Your task to perform on an android device: open app "McDonald's" (install if not already installed), go to login, and select forgot password Image 0: 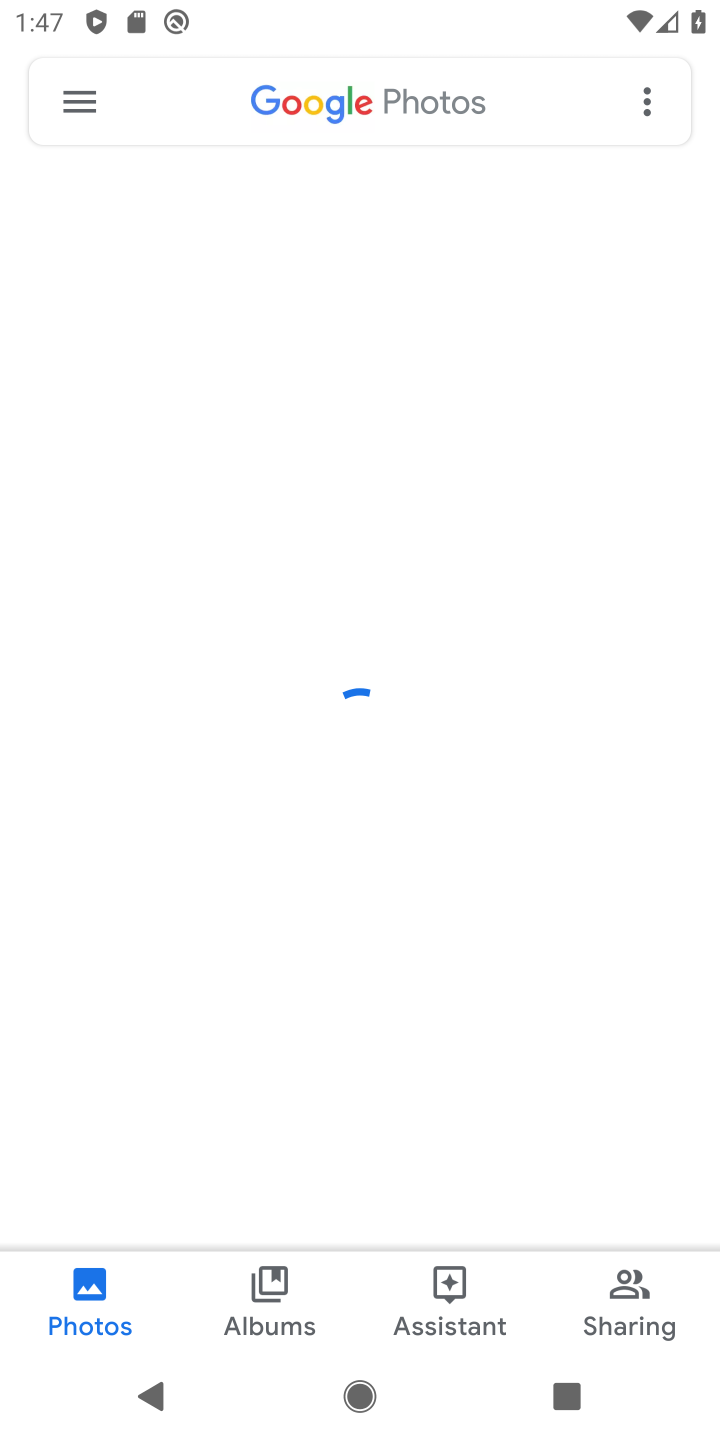
Step 0: press home button
Your task to perform on an android device: open app "McDonald's" (install if not already installed), go to login, and select forgot password Image 1: 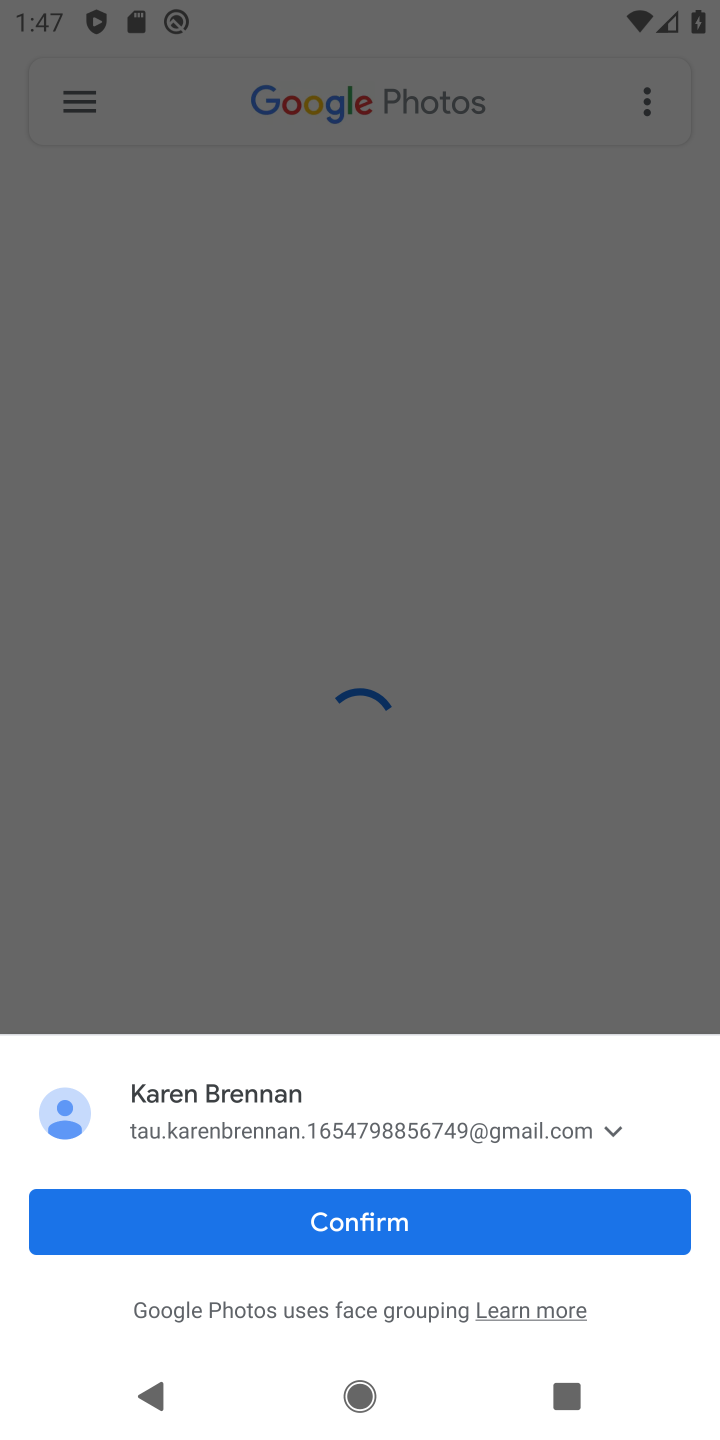
Step 1: press home button
Your task to perform on an android device: open app "McDonald's" (install if not already installed), go to login, and select forgot password Image 2: 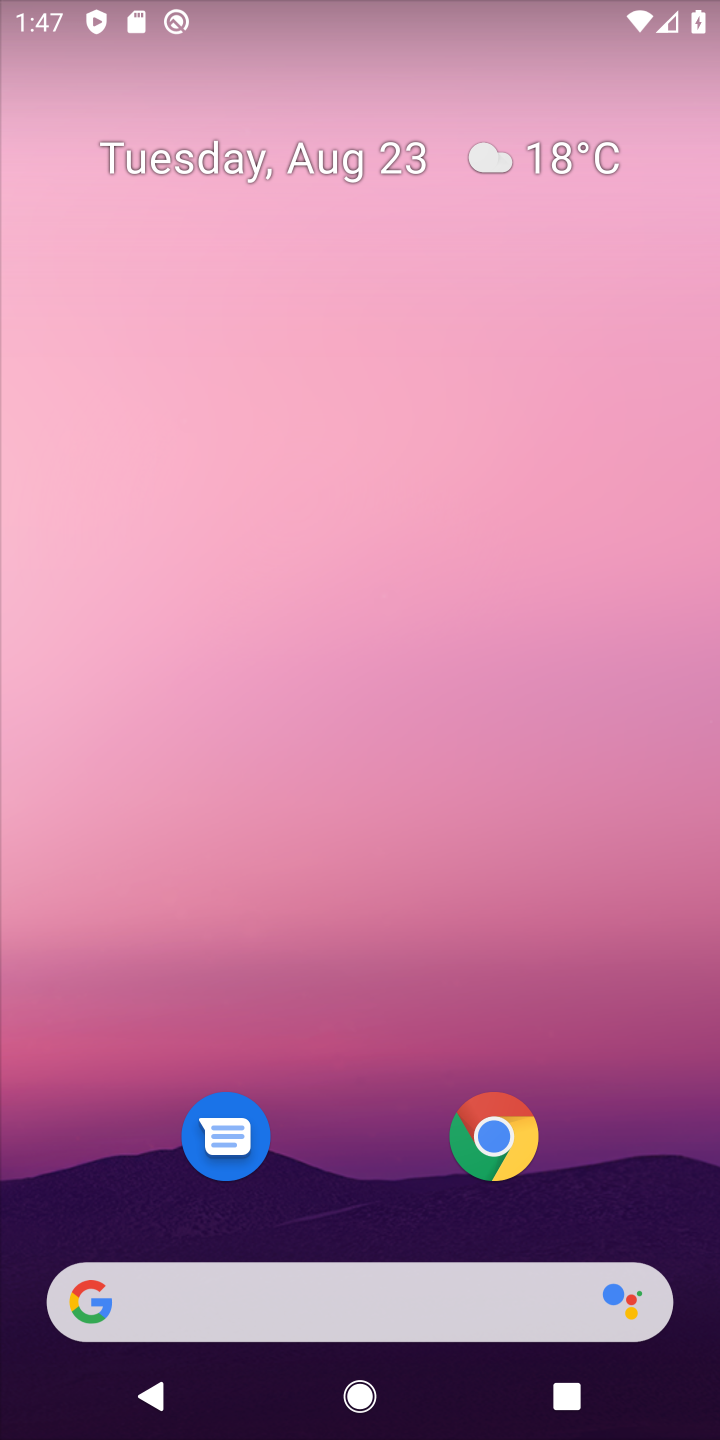
Step 2: press home button
Your task to perform on an android device: open app "McDonald's" (install if not already installed), go to login, and select forgot password Image 3: 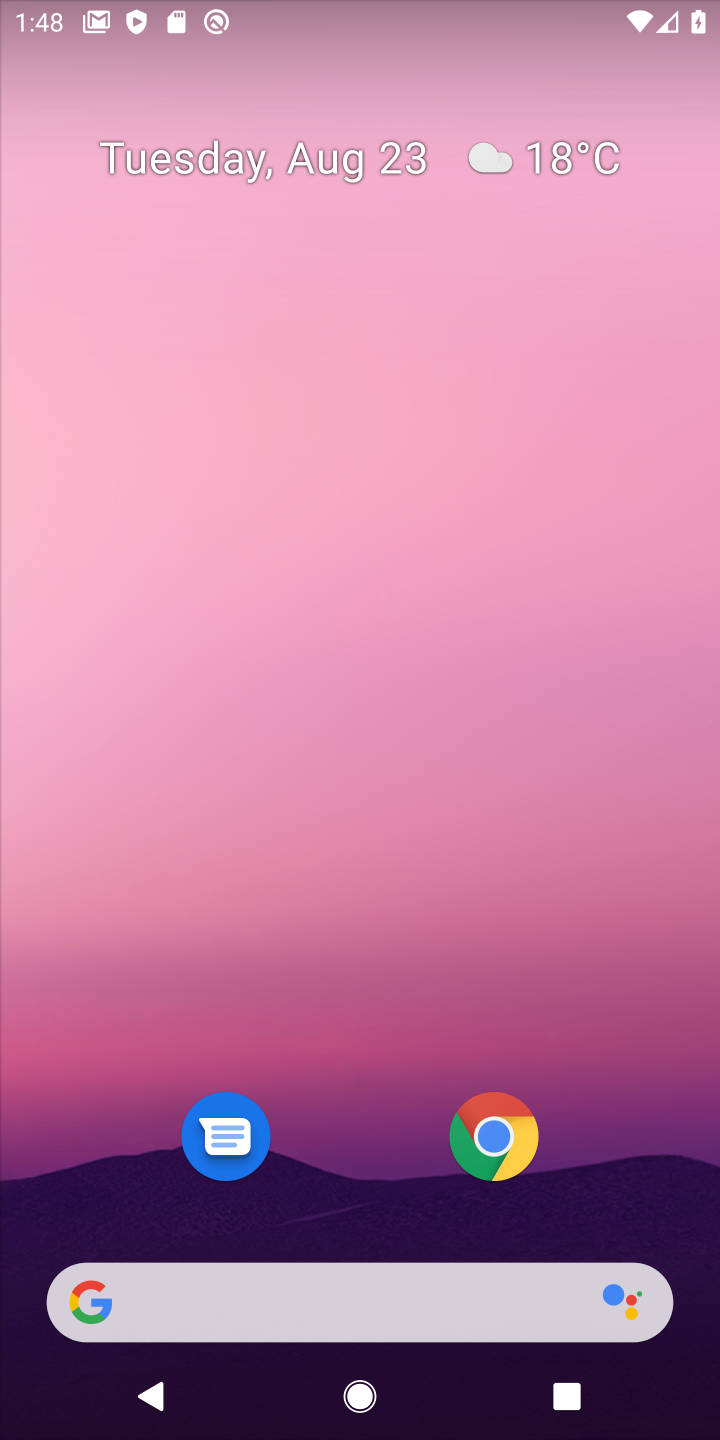
Step 3: drag from (411, 834) to (451, 96)
Your task to perform on an android device: open app "McDonald's" (install if not already installed), go to login, and select forgot password Image 4: 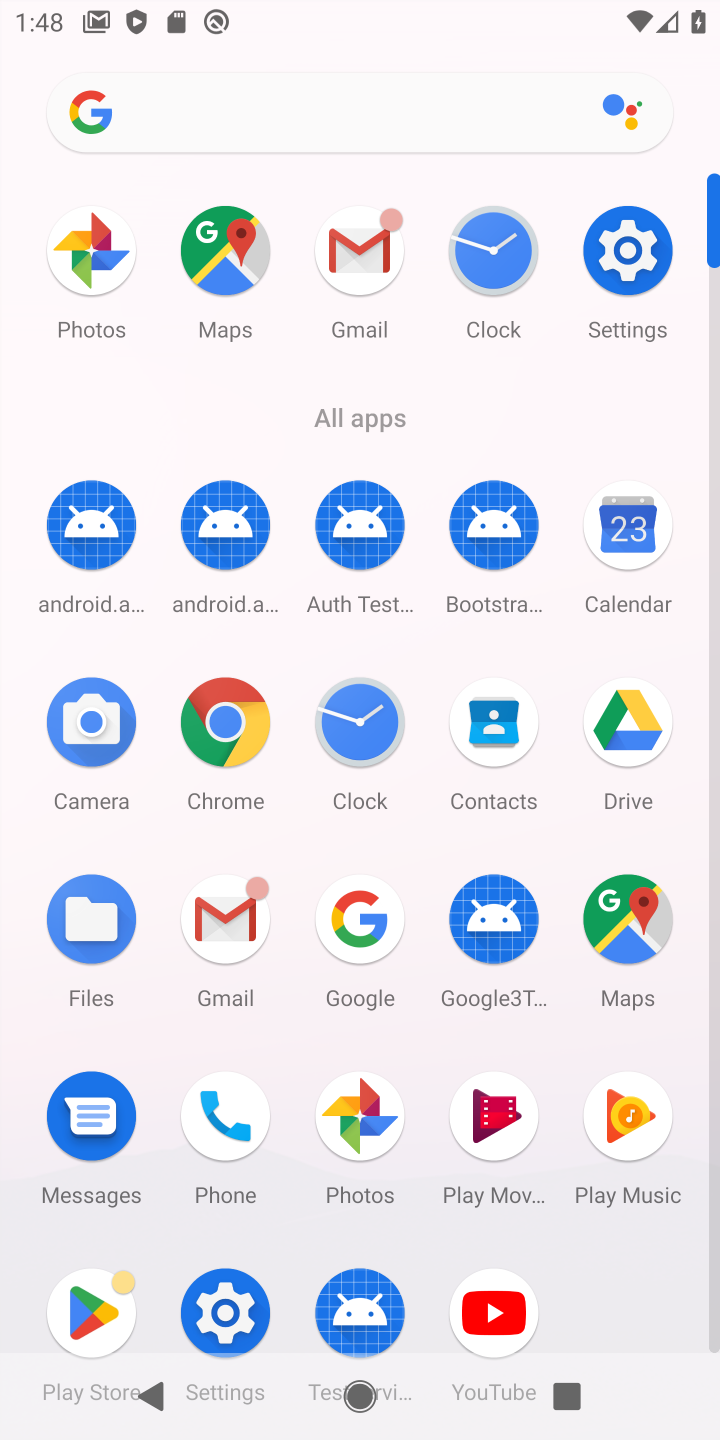
Step 4: click (90, 1300)
Your task to perform on an android device: open app "McDonald's" (install if not already installed), go to login, and select forgot password Image 5: 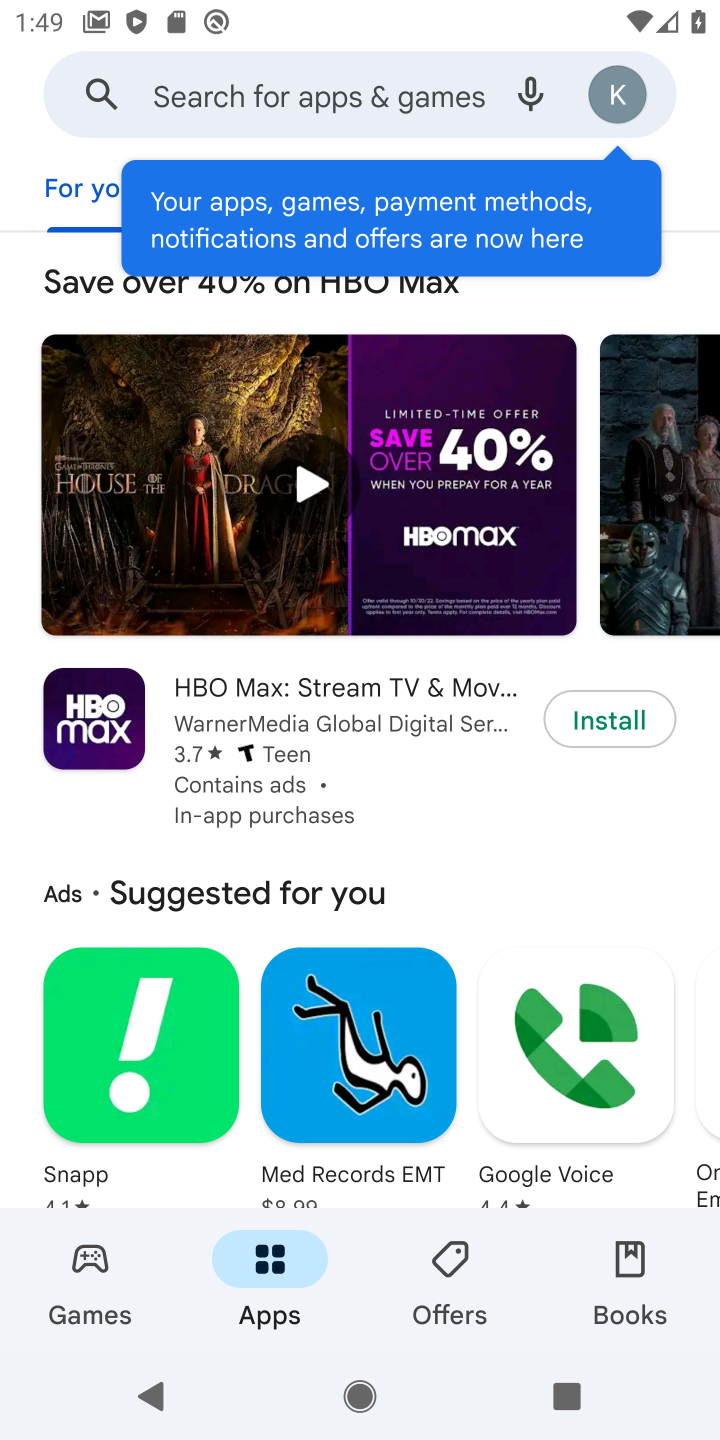
Step 5: click (258, 67)
Your task to perform on an android device: open app "McDonald's" (install if not already installed), go to login, and select forgot password Image 6: 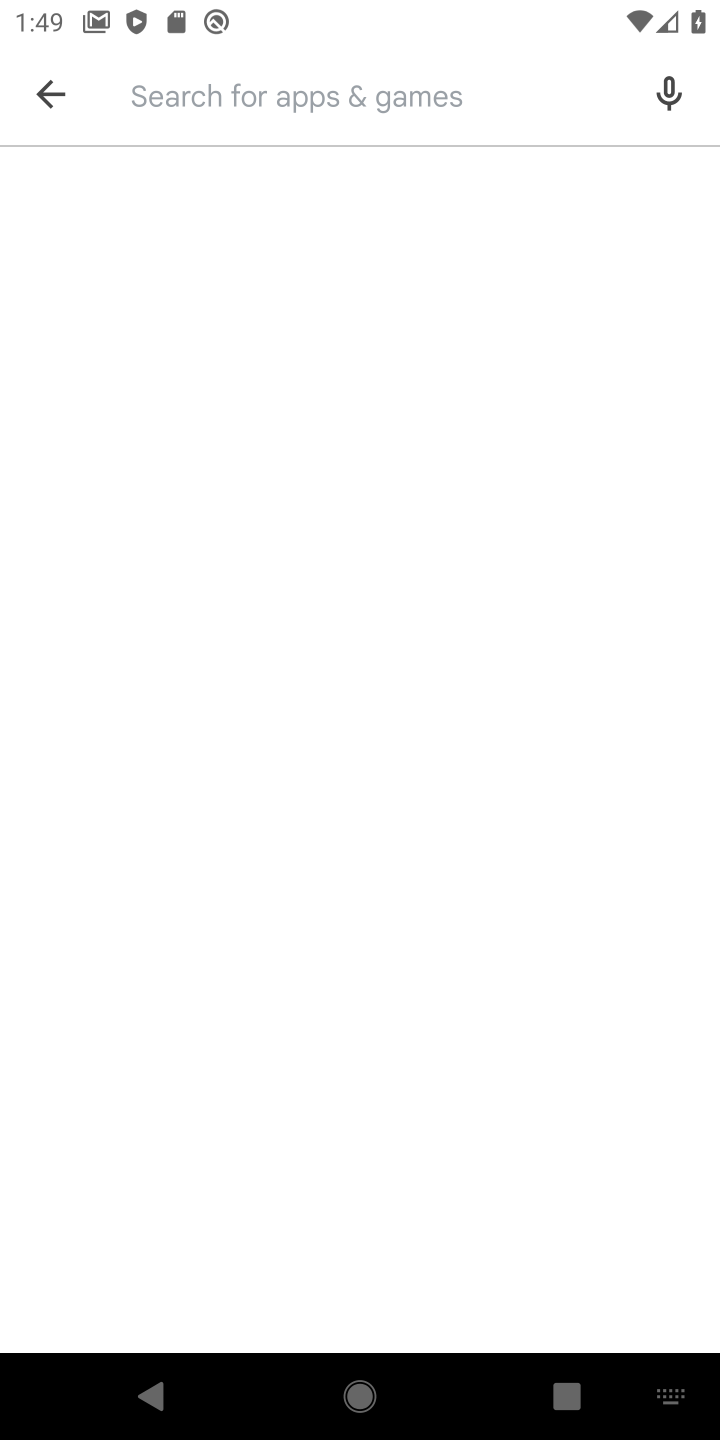
Step 6: type "McDonald's"
Your task to perform on an android device: open app "McDonald's" (install if not already installed), go to login, and select forgot password Image 7: 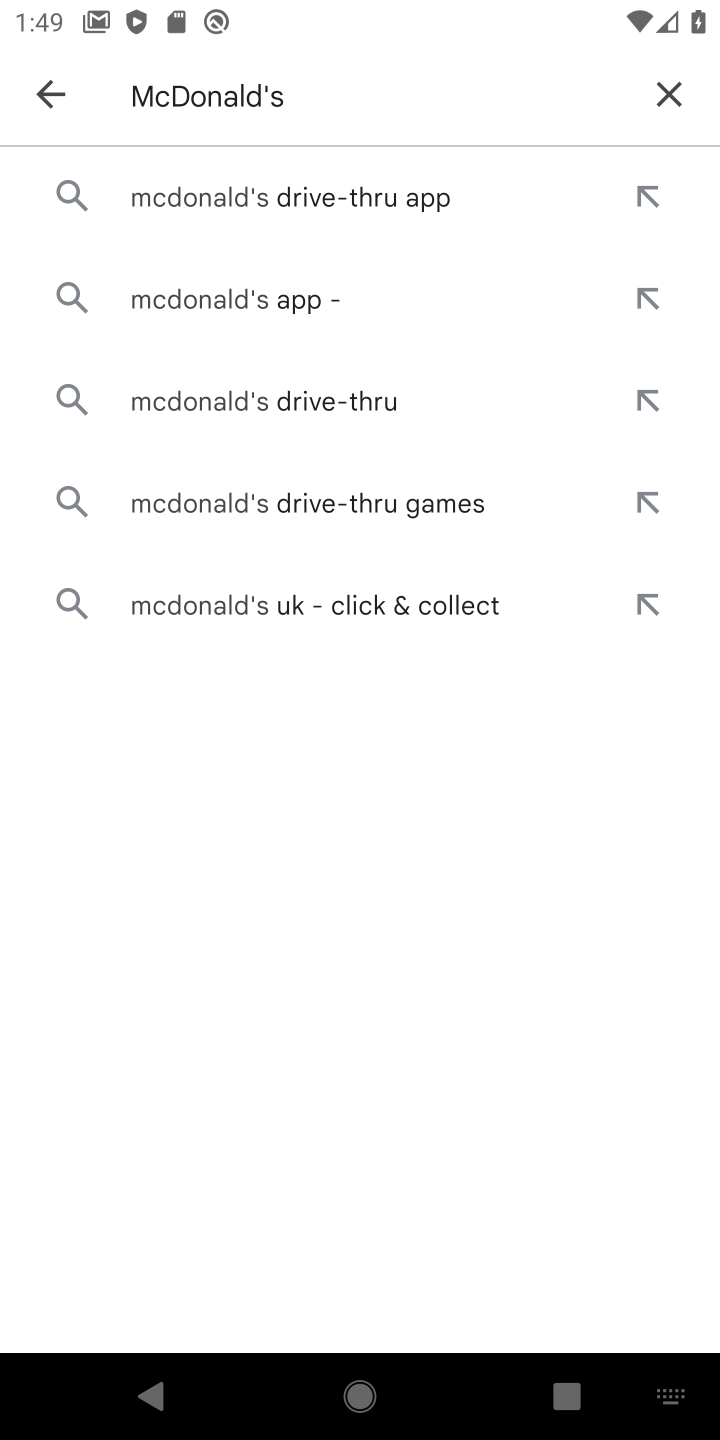
Step 7: click (303, 295)
Your task to perform on an android device: open app "McDonald's" (install if not already installed), go to login, and select forgot password Image 8: 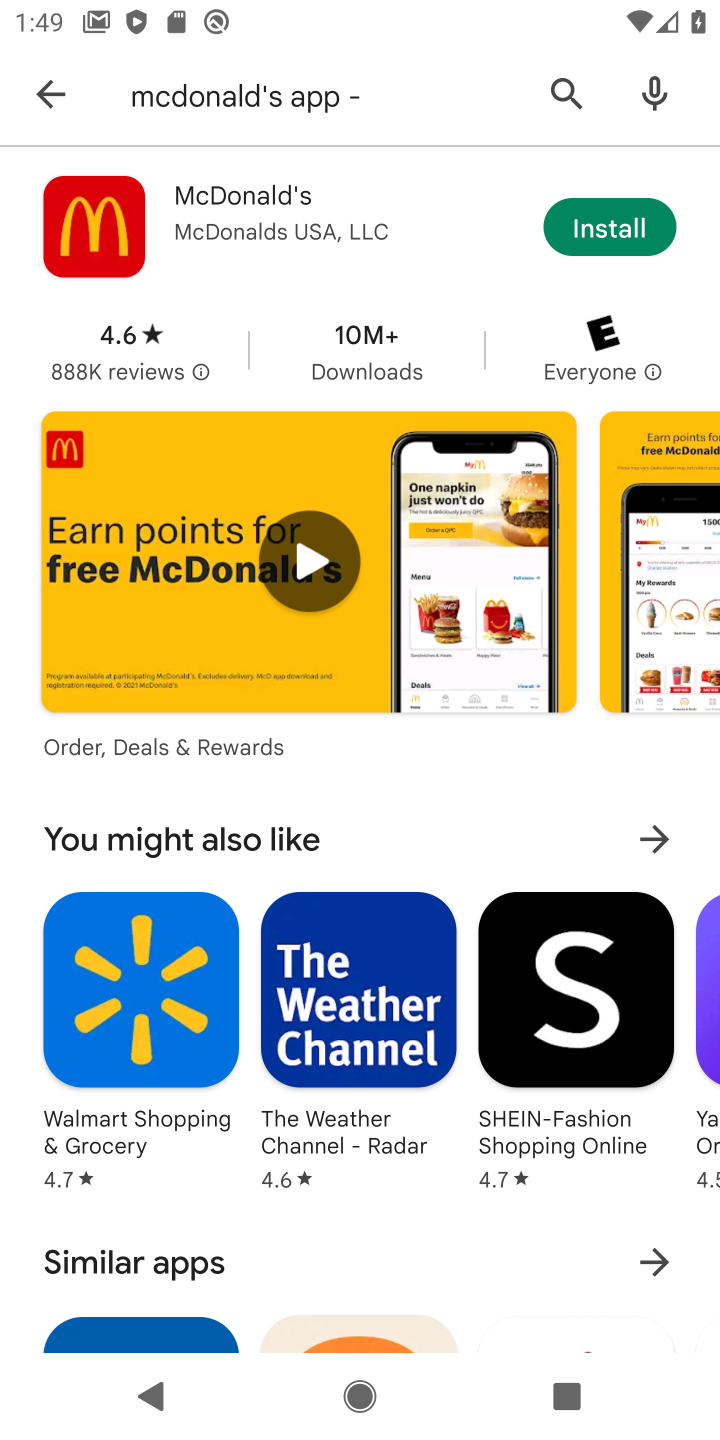
Step 8: click (627, 218)
Your task to perform on an android device: open app "McDonald's" (install if not already installed), go to login, and select forgot password Image 9: 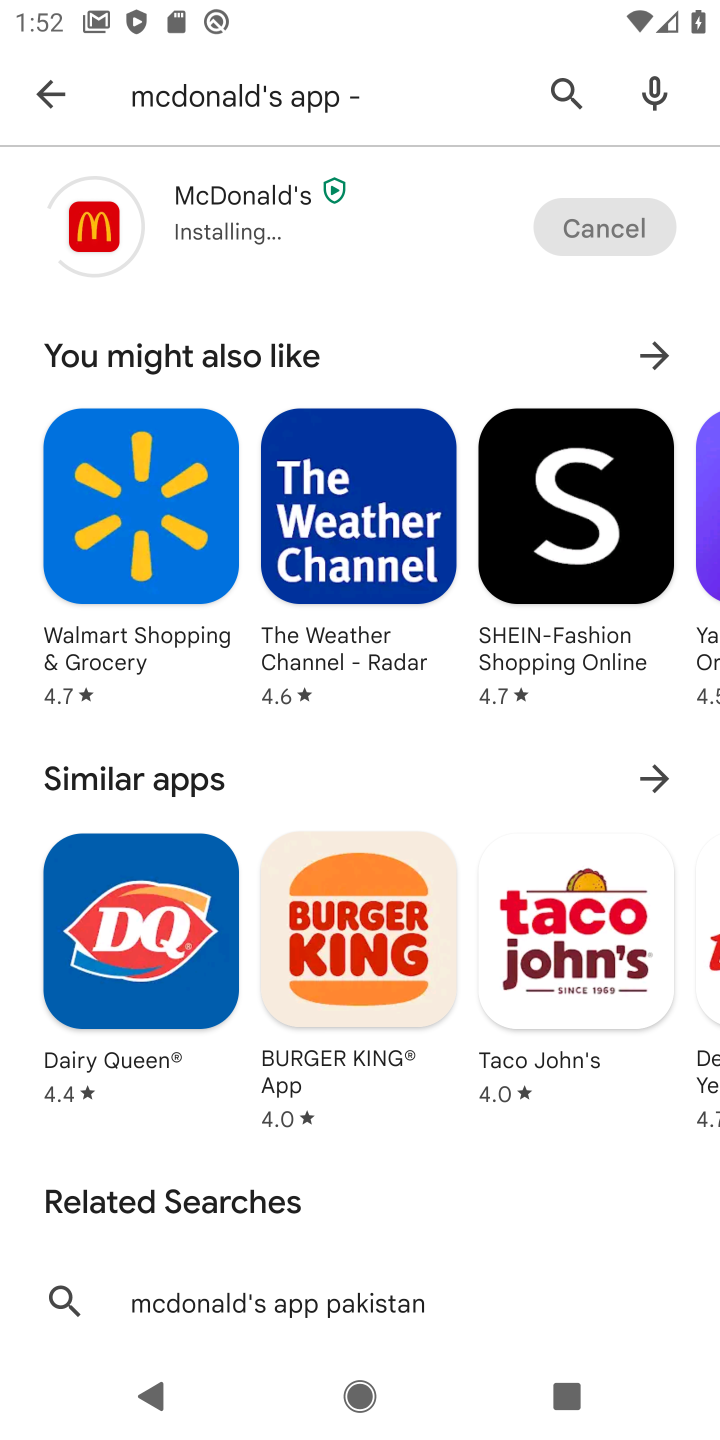
Step 9: task complete